Your task to perform on an android device: Search for Mexican restaurants on Maps Image 0: 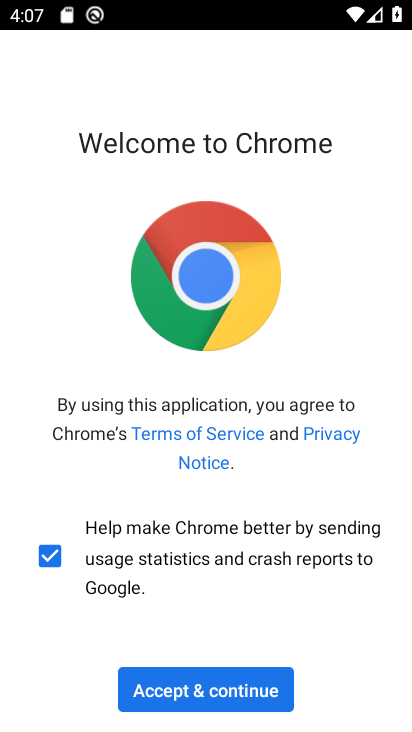
Step 0: press home button
Your task to perform on an android device: Search for Mexican restaurants on Maps Image 1: 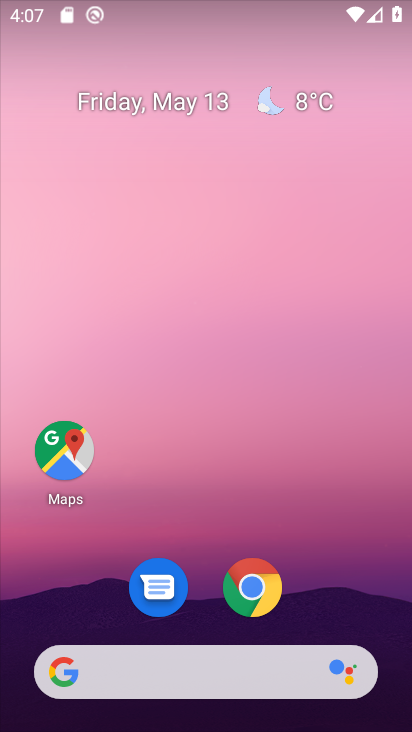
Step 1: click (60, 466)
Your task to perform on an android device: Search for Mexican restaurants on Maps Image 2: 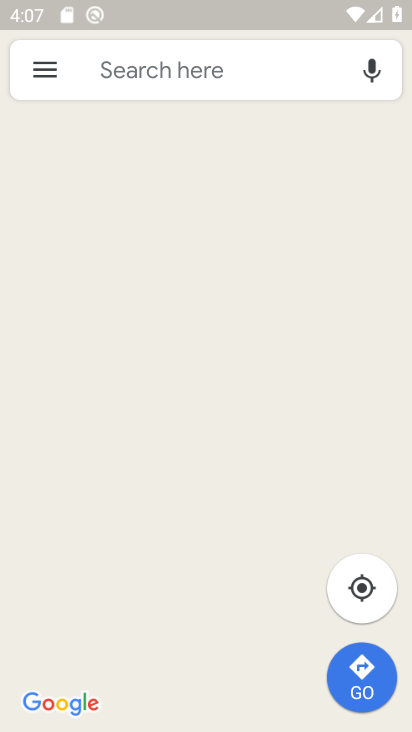
Step 2: click (169, 77)
Your task to perform on an android device: Search for Mexican restaurants on Maps Image 3: 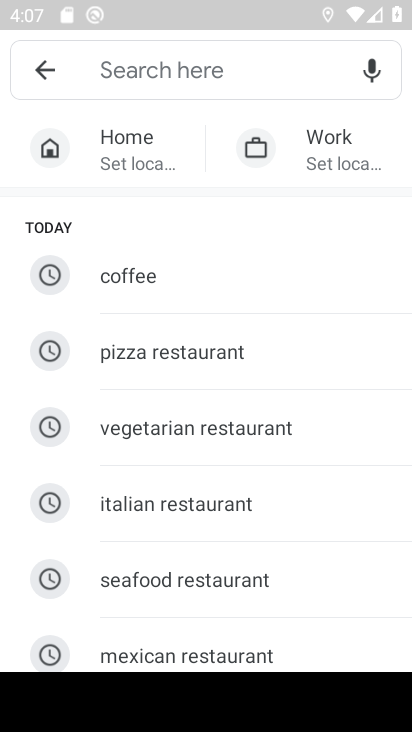
Step 3: type "Mexican restaurants"
Your task to perform on an android device: Search for Mexican restaurants on Maps Image 4: 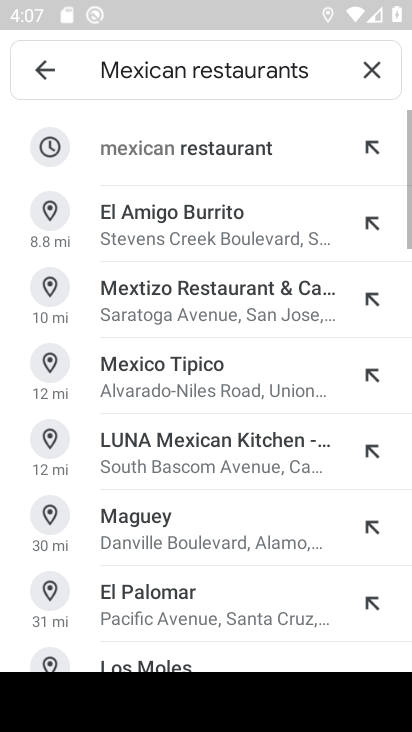
Step 4: click (217, 159)
Your task to perform on an android device: Search for Mexican restaurants on Maps Image 5: 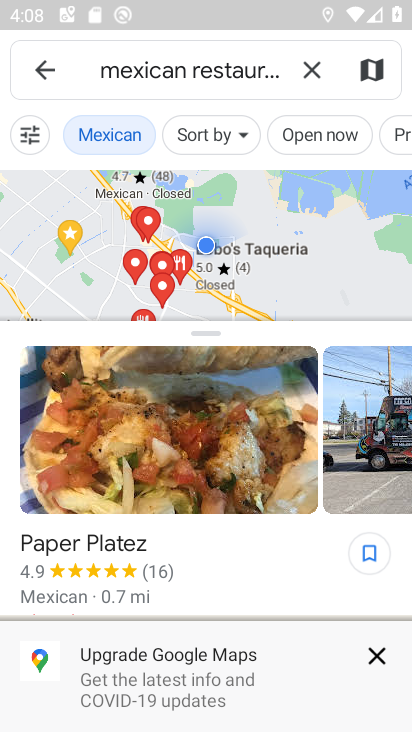
Step 5: task complete